Your task to perform on an android device: Turn on the flashlight Image 0: 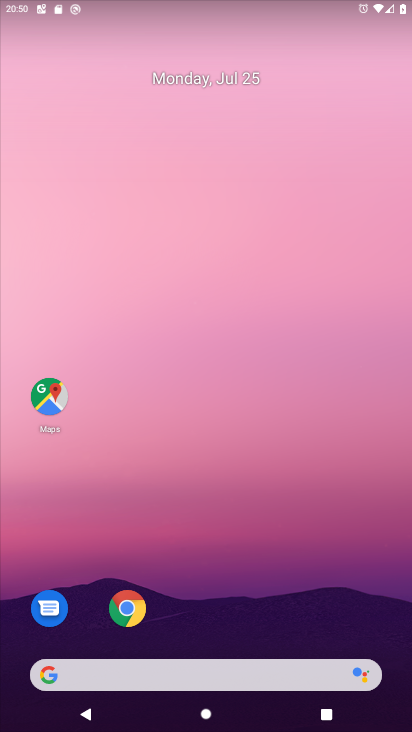
Step 0: drag from (284, 610) to (272, 86)
Your task to perform on an android device: Turn on the flashlight Image 1: 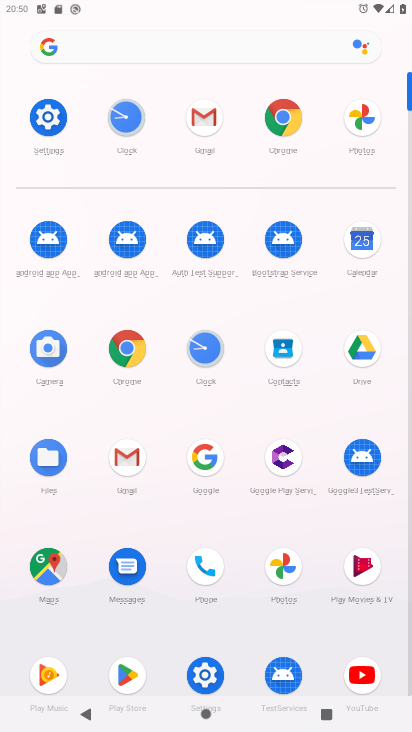
Step 1: click (40, 140)
Your task to perform on an android device: Turn on the flashlight Image 2: 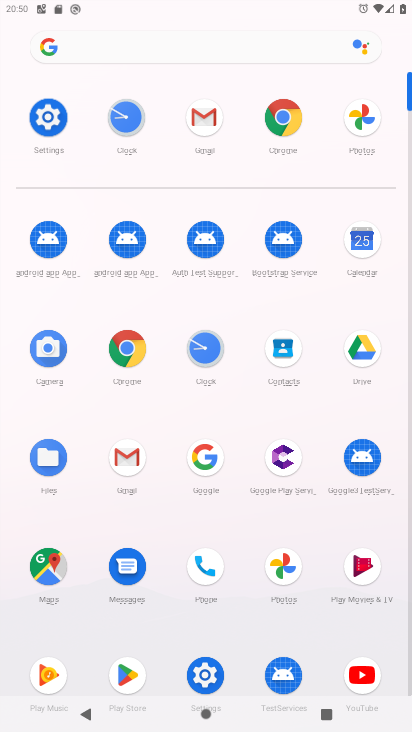
Step 2: click (40, 140)
Your task to perform on an android device: Turn on the flashlight Image 3: 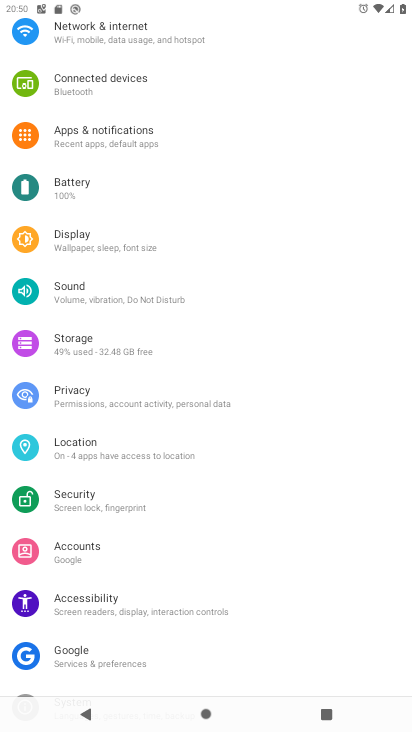
Step 3: task complete